Your task to perform on an android device: turn off location history Image 0: 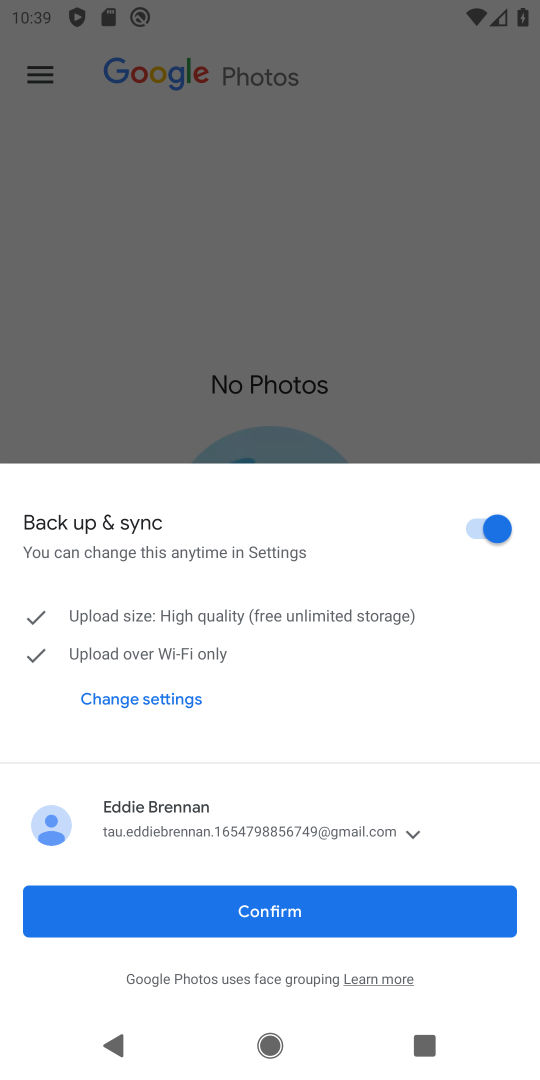
Step 0: press home button
Your task to perform on an android device: turn off location history Image 1: 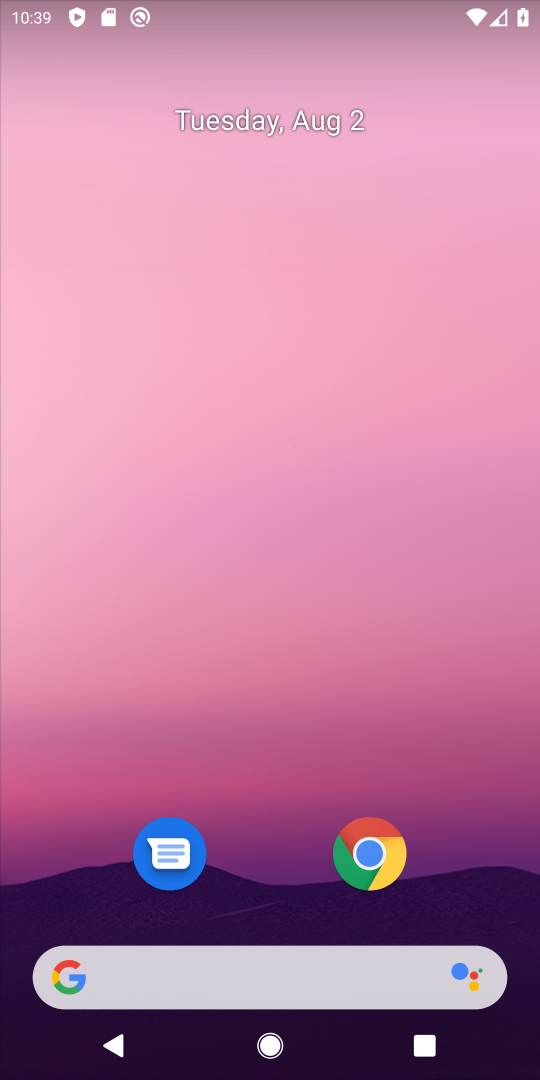
Step 1: drag from (461, 827) to (394, 209)
Your task to perform on an android device: turn off location history Image 2: 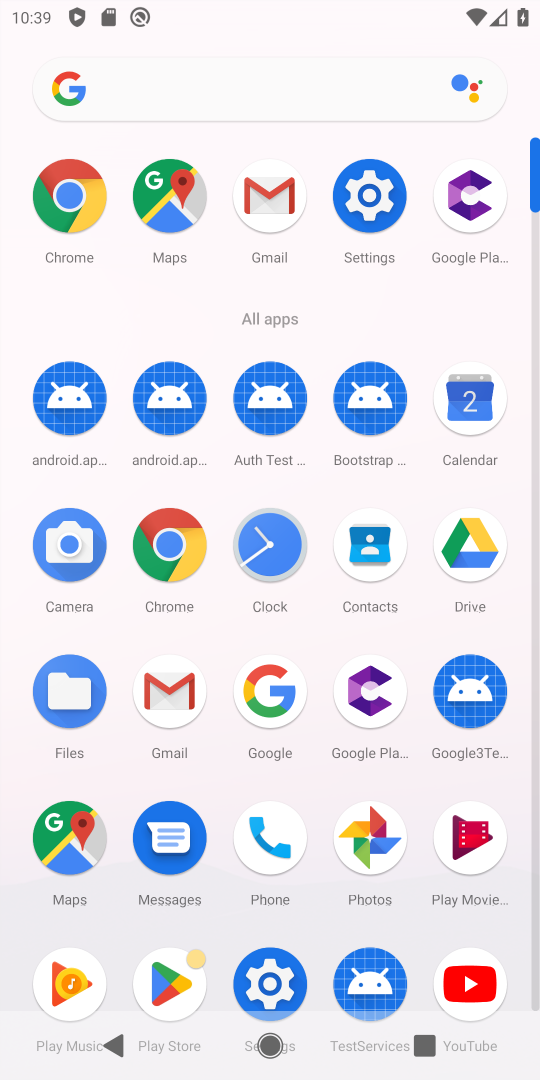
Step 2: click (259, 968)
Your task to perform on an android device: turn off location history Image 3: 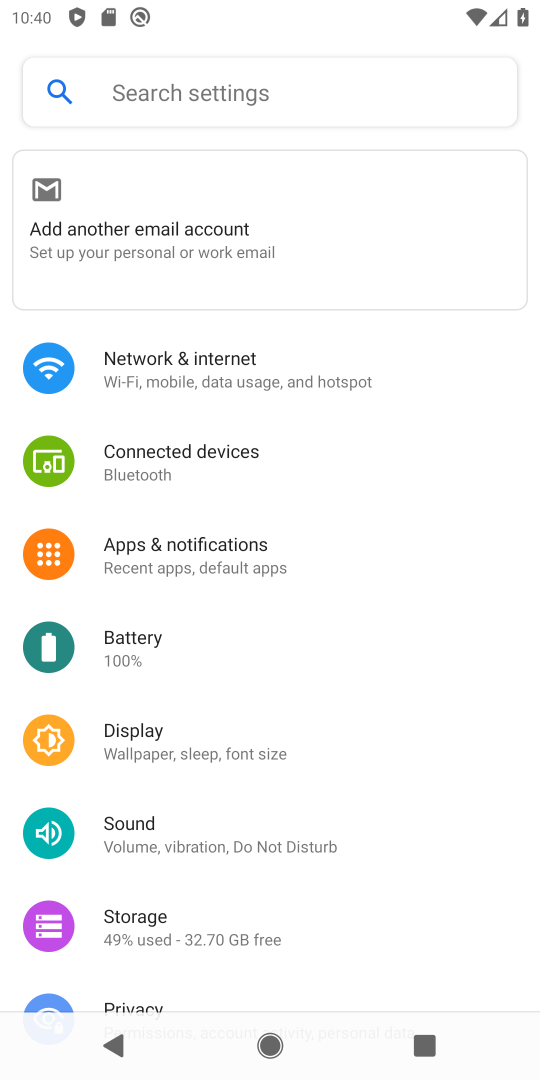
Step 3: drag from (314, 882) to (263, 605)
Your task to perform on an android device: turn off location history Image 4: 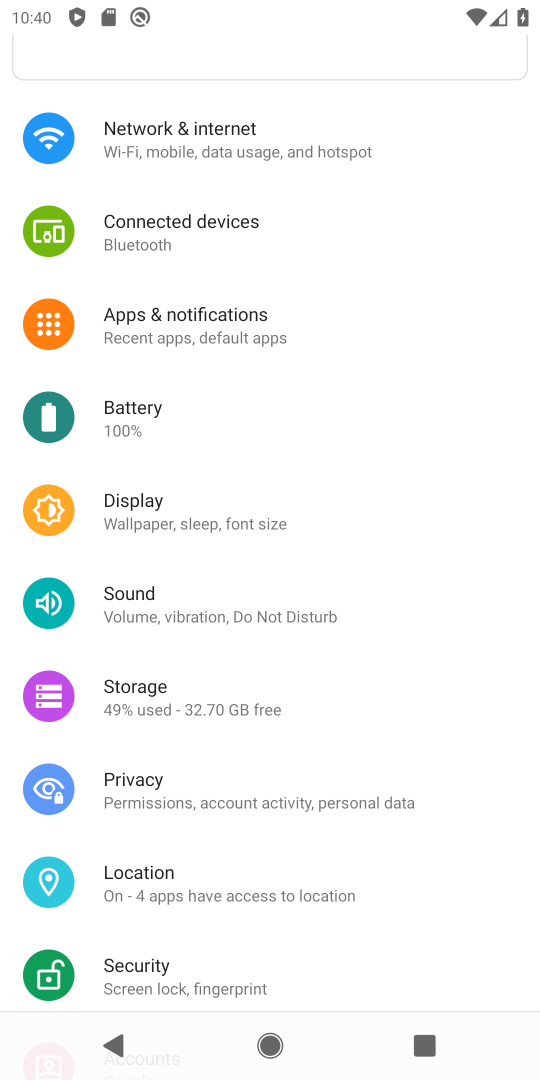
Step 4: click (156, 894)
Your task to perform on an android device: turn off location history Image 5: 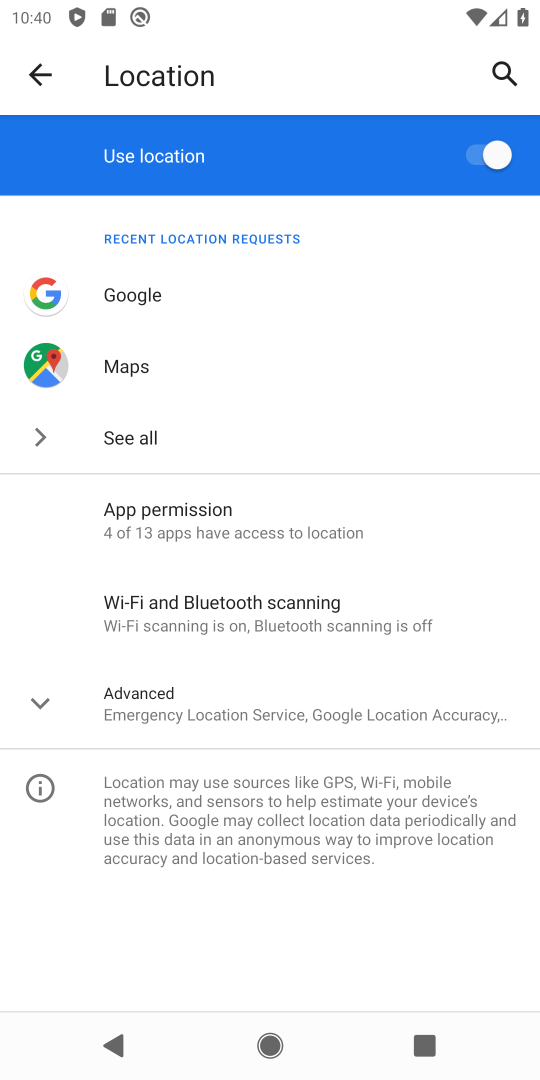
Step 5: click (200, 705)
Your task to perform on an android device: turn off location history Image 6: 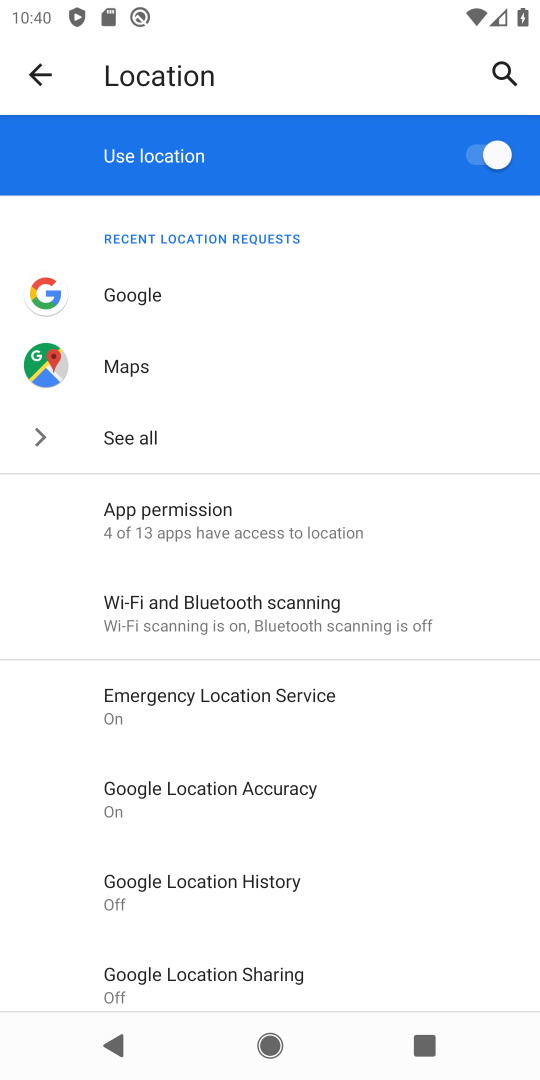
Step 6: click (318, 886)
Your task to perform on an android device: turn off location history Image 7: 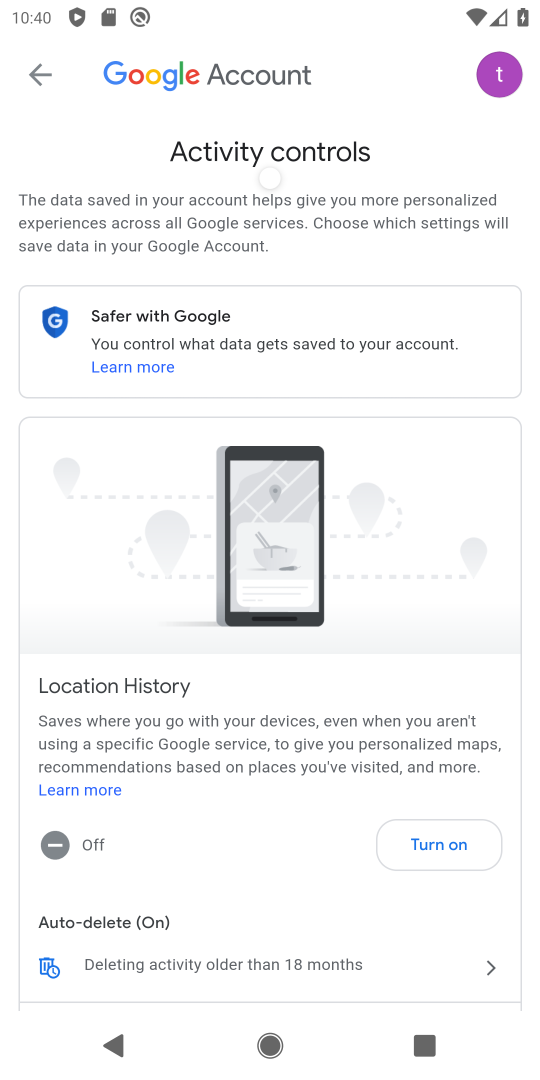
Step 7: task complete